Your task to perform on an android device: Install the Amazon app Image 0: 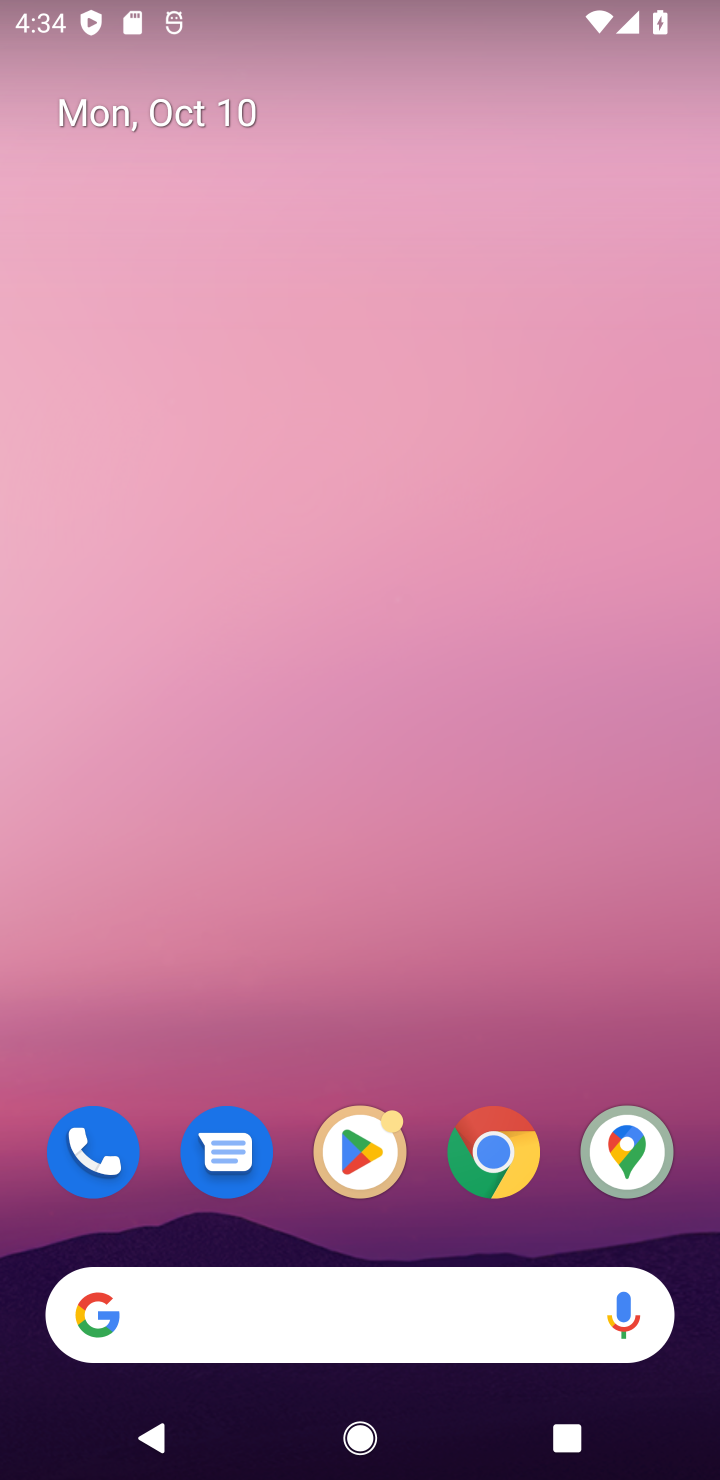
Step 0: click (359, 1153)
Your task to perform on an android device: Install the Amazon app Image 1: 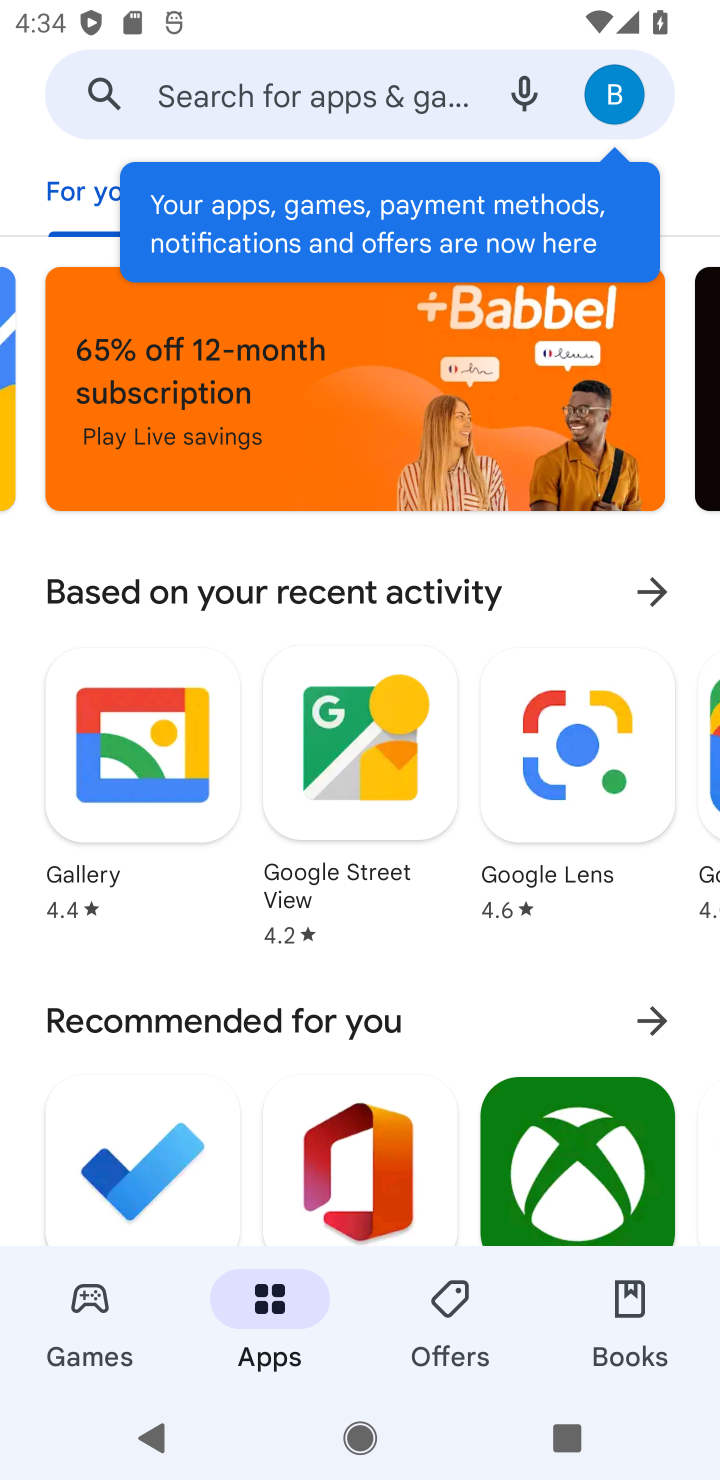
Step 1: click (327, 99)
Your task to perform on an android device: Install the Amazon app Image 2: 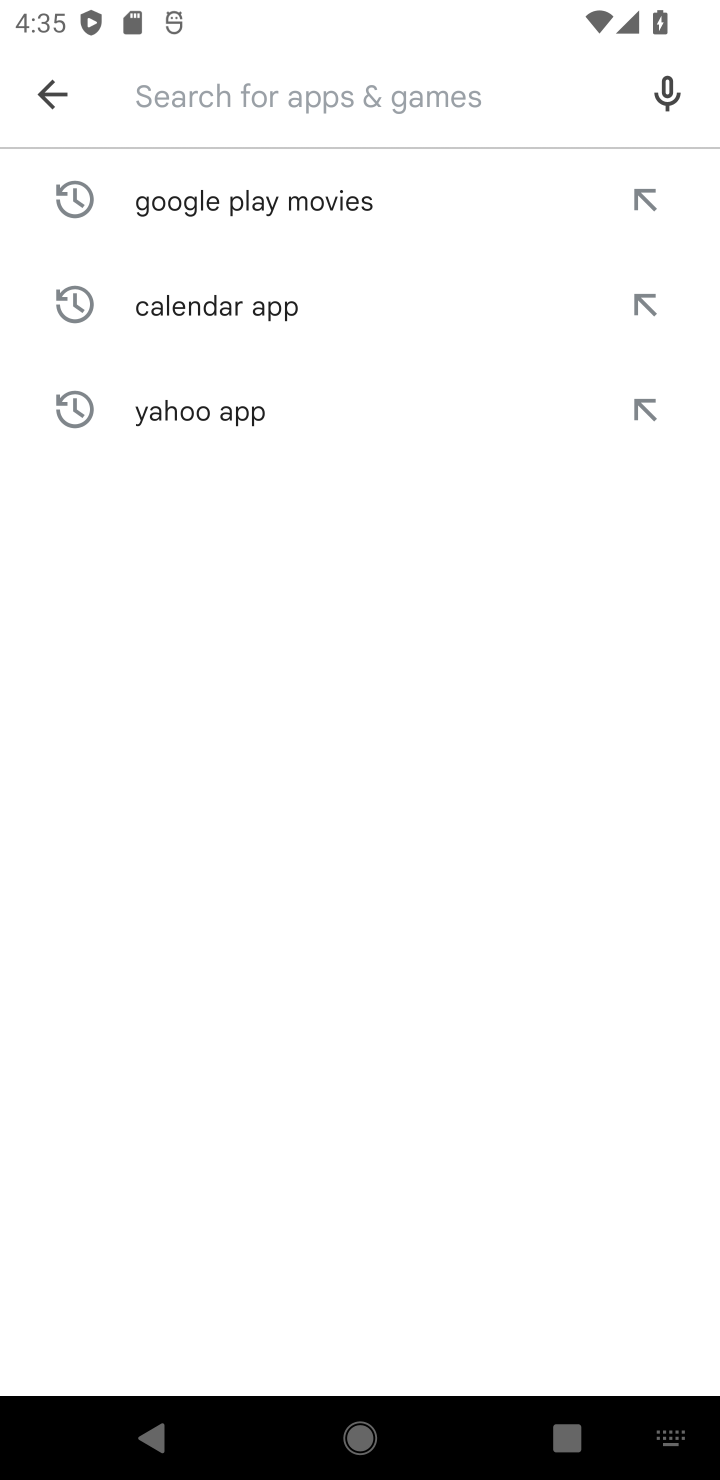
Step 2: type "Amazon"
Your task to perform on an android device: Install the Amazon app Image 3: 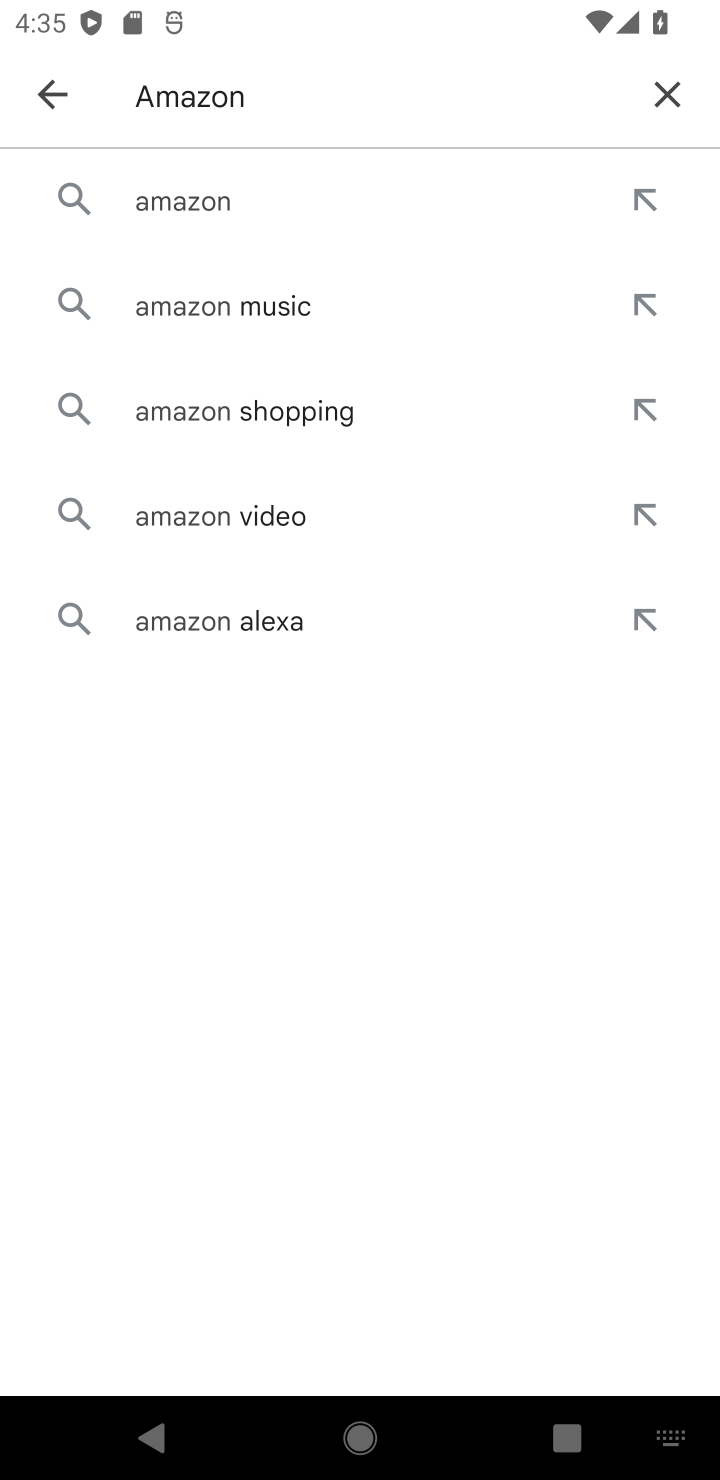
Step 3: click (163, 194)
Your task to perform on an android device: Install the Amazon app Image 4: 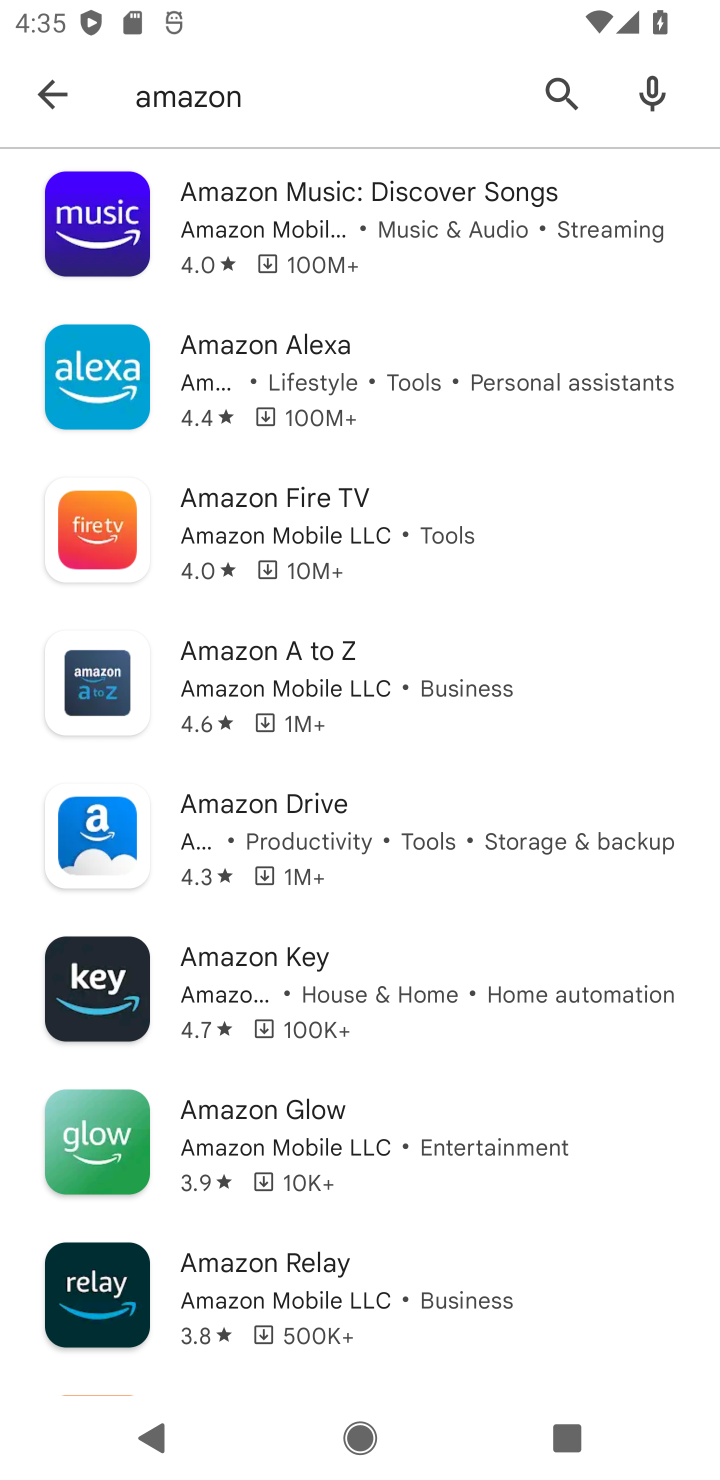
Step 4: task complete